Your task to perform on an android device: add a contact Image 0: 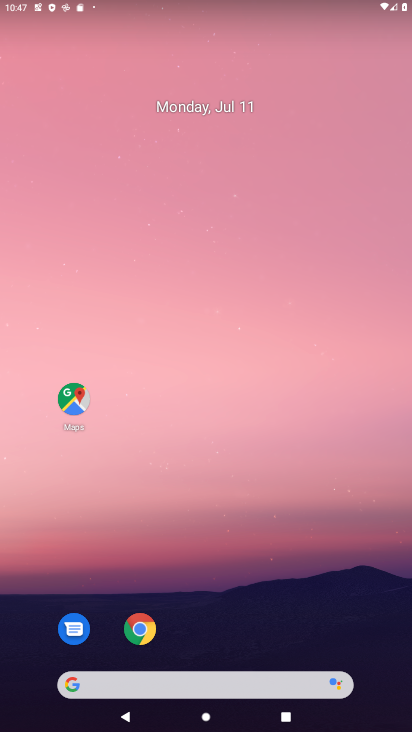
Step 0: drag from (260, 649) to (240, 183)
Your task to perform on an android device: add a contact Image 1: 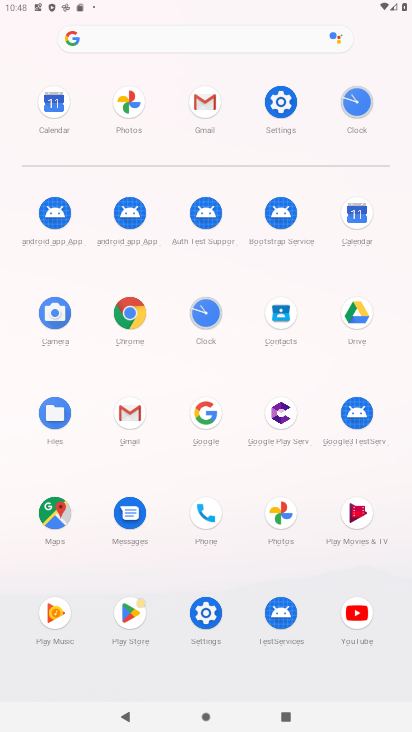
Step 1: click (269, 320)
Your task to perform on an android device: add a contact Image 2: 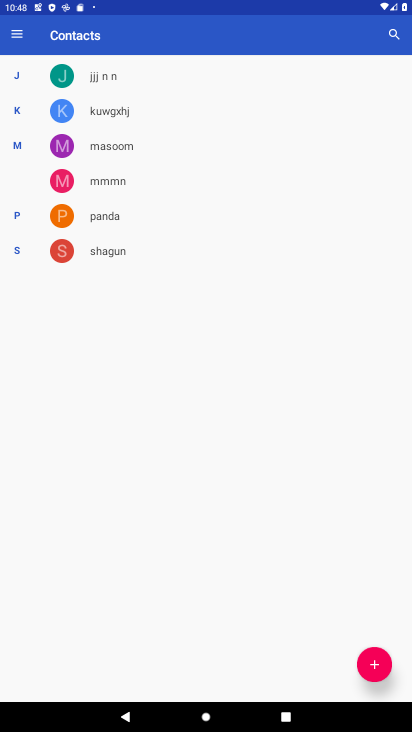
Step 2: click (384, 659)
Your task to perform on an android device: add a contact Image 3: 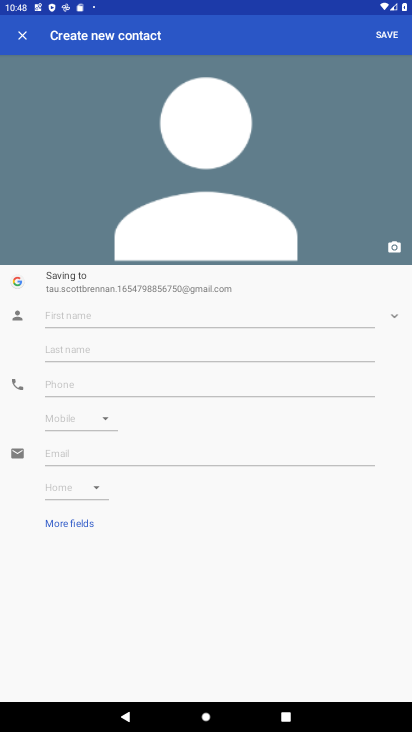
Step 3: click (235, 319)
Your task to perform on an android device: add a contact Image 4: 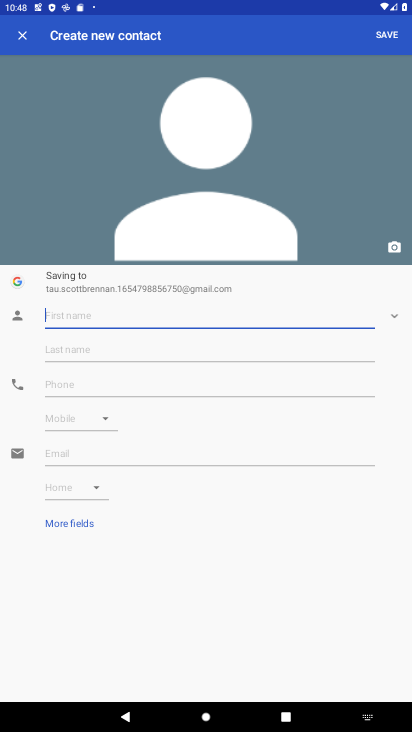
Step 4: type "kkgf"
Your task to perform on an android device: add a contact Image 5: 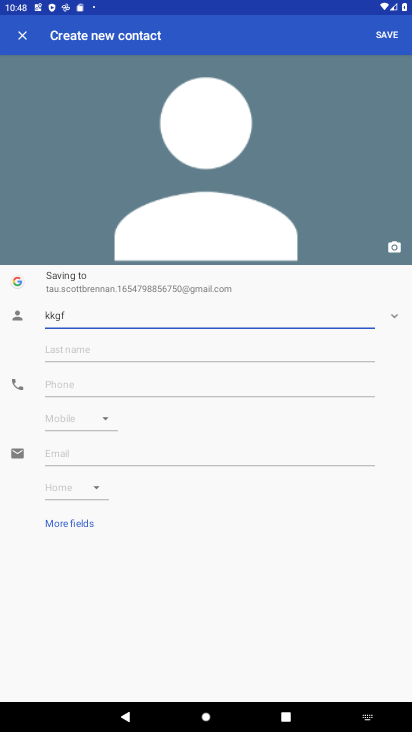
Step 5: click (304, 339)
Your task to perform on an android device: add a contact Image 6: 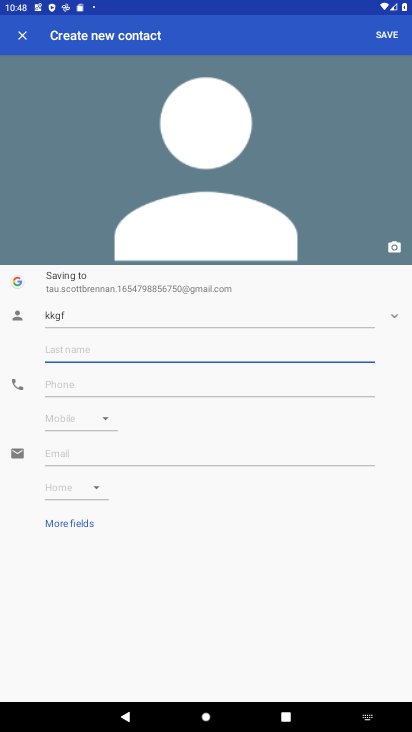
Step 6: type "sefs"
Your task to perform on an android device: add a contact Image 7: 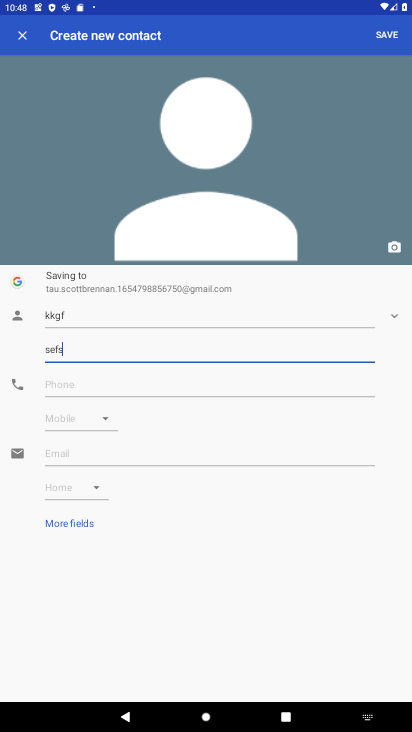
Step 7: click (167, 395)
Your task to perform on an android device: add a contact Image 8: 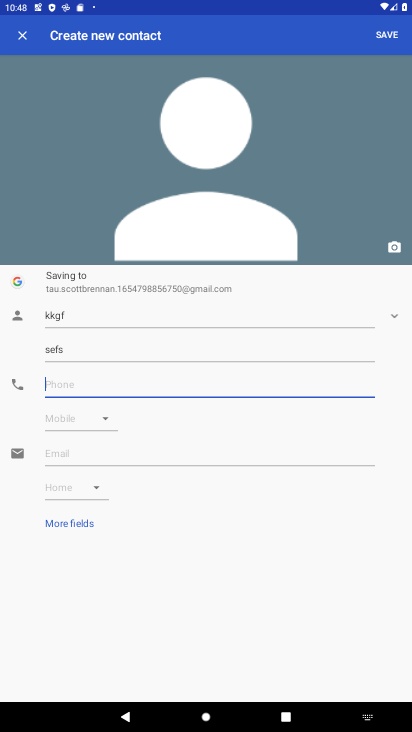
Step 8: type "2342423235"
Your task to perform on an android device: add a contact Image 9: 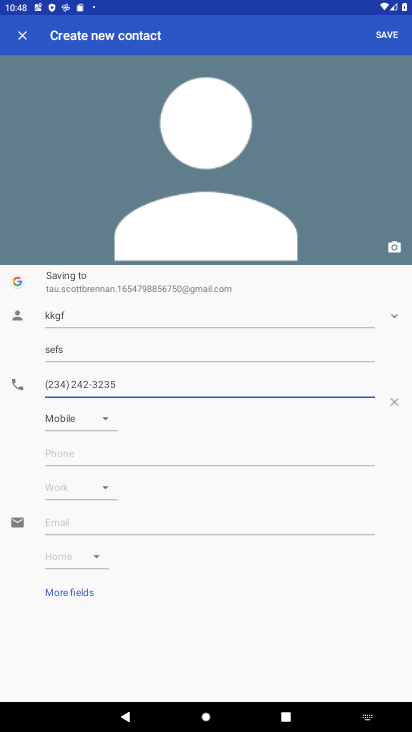
Step 9: click (367, 40)
Your task to perform on an android device: add a contact Image 10: 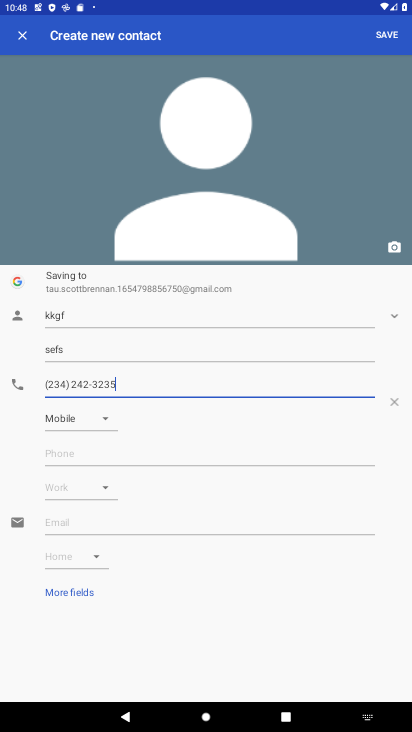
Step 10: task complete